Your task to perform on an android device: Open calendar and show me the third week of next month Image 0: 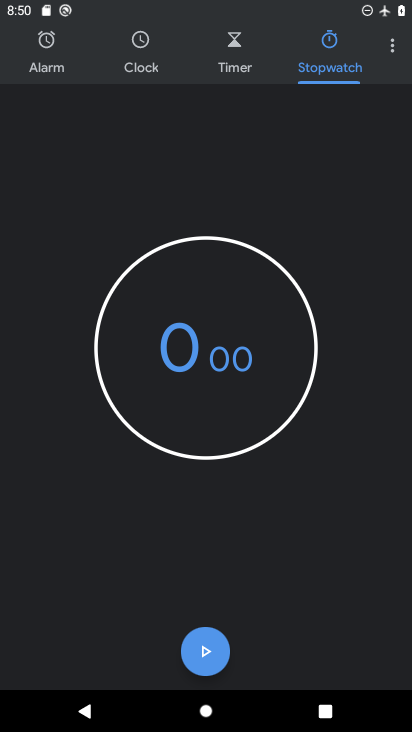
Step 0: press home button
Your task to perform on an android device: Open calendar and show me the third week of next month Image 1: 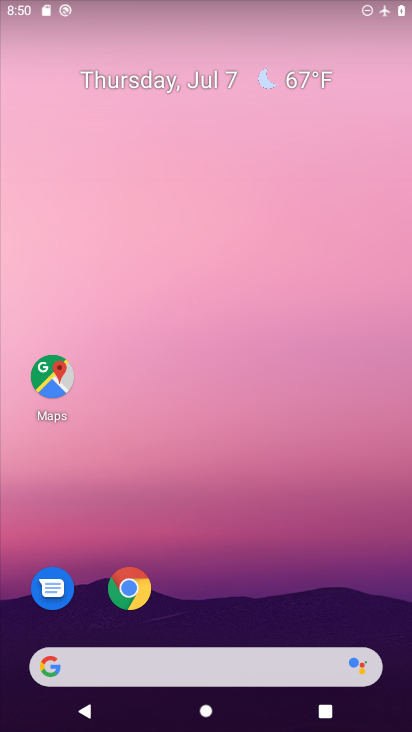
Step 1: drag from (230, 615) to (222, 71)
Your task to perform on an android device: Open calendar and show me the third week of next month Image 2: 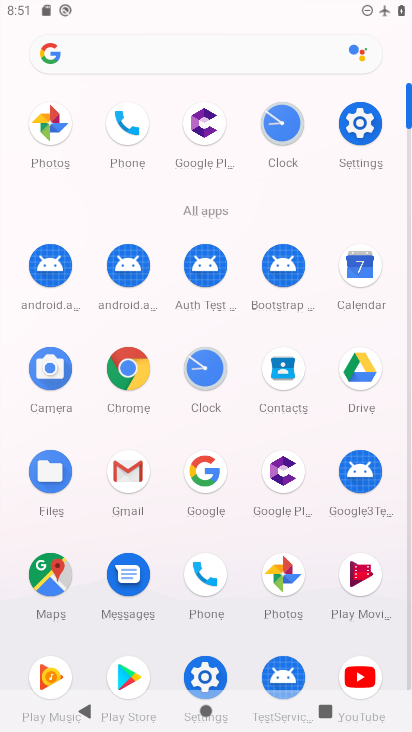
Step 2: click (365, 265)
Your task to perform on an android device: Open calendar and show me the third week of next month Image 3: 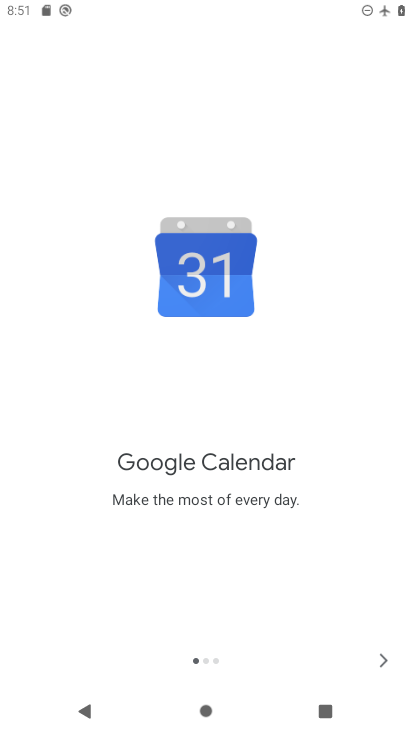
Step 3: click (376, 659)
Your task to perform on an android device: Open calendar and show me the third week of next month Image 4: 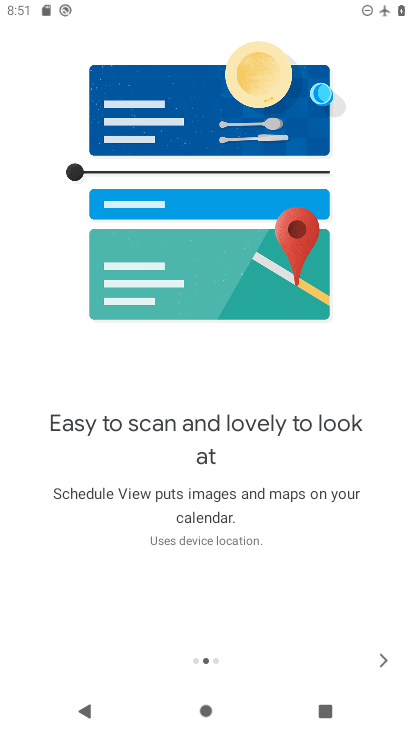
Step 4: click (376, 659)
Your task to perform on an android device: Open calendar and show me the third week of next month Image 5: 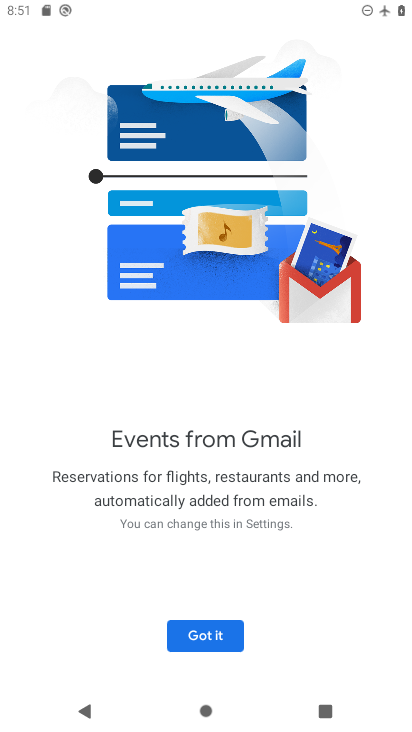
Step 5: click (213, 637)
Your task to perform on an android device: Open calendar and show me the third week of next month Image 6: 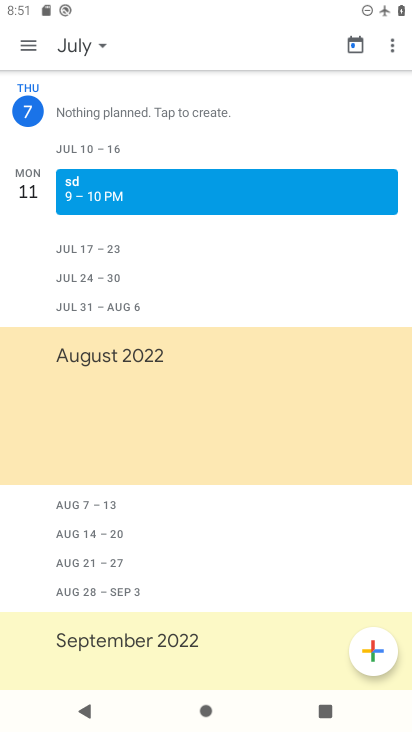
Step 6: click (97, 42)
Your task to perform on an android device: Open calendar and show me the third week of next month Image 7: 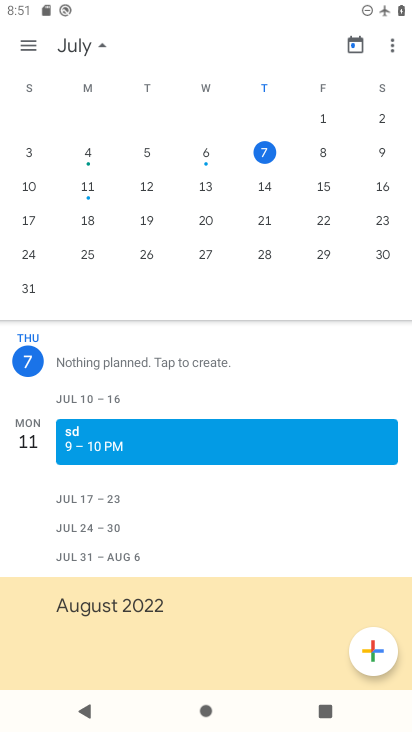
Step 7: drag from (363, 197) to (2, 249)
Your task to perform on an android device: Open calendar and show me the third week of next month Image 8: 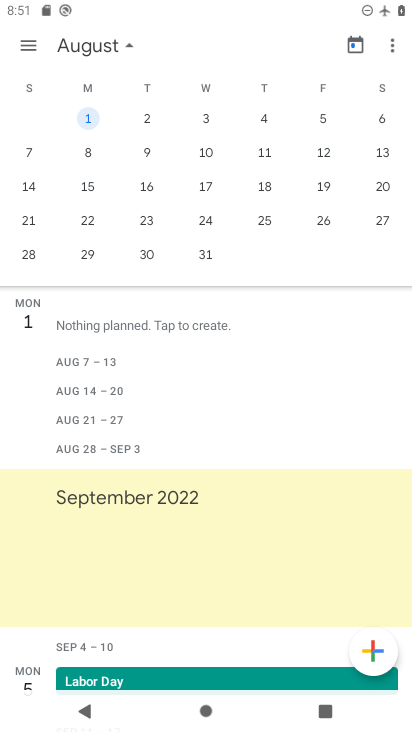
Step 8: click (90, 179)
Your task to perform on an android device: Open calendar and show me the third week of next month Image 9: 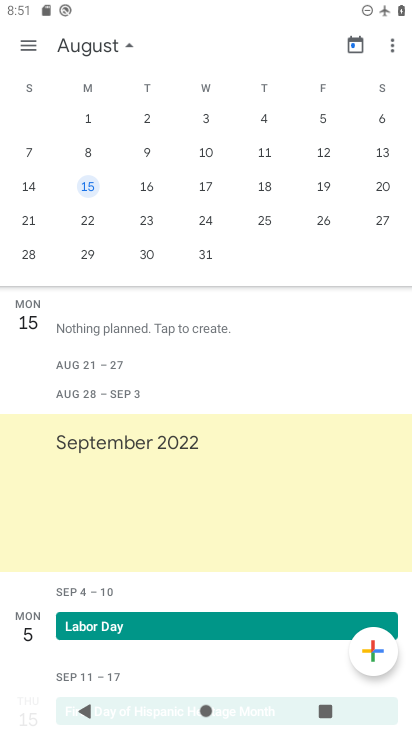
Step 9: click (30, 43)
Your task to perform on an android device: Open calendar and show me the third week of next month Image 10: 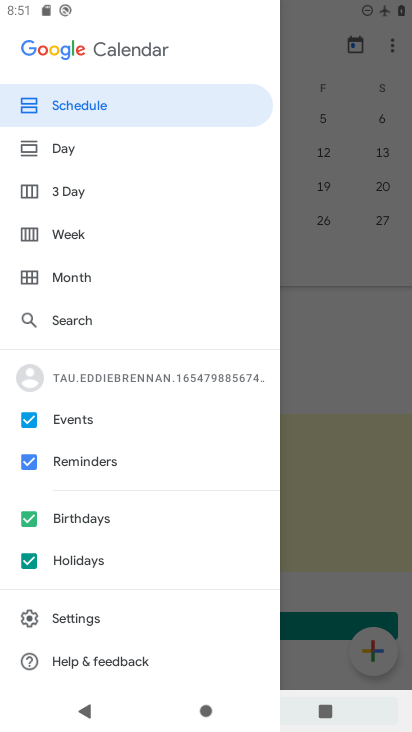
Step 10: click (64, 231)
Your task to perform on an android device: Open calendar and show me the third week of next month Image 11: 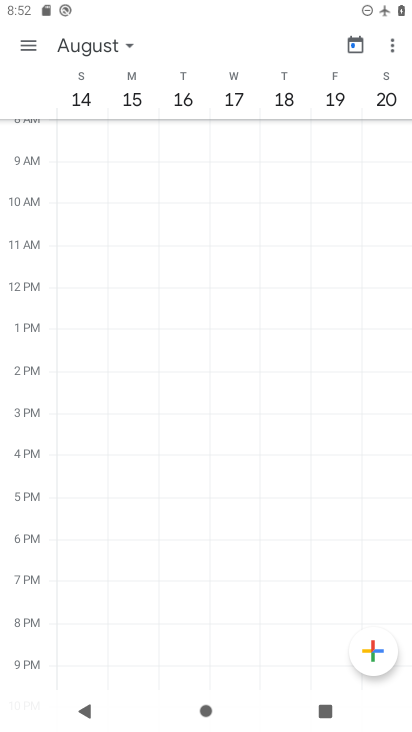
Step 11: task complete